Your task to perform on an android device: change timer sound Image 0: 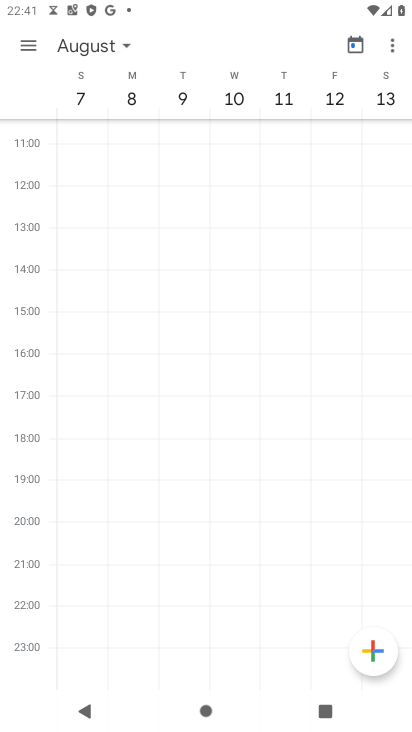
Step 0: press home button
Your task to perform on an android device: change timer sound Image 1: 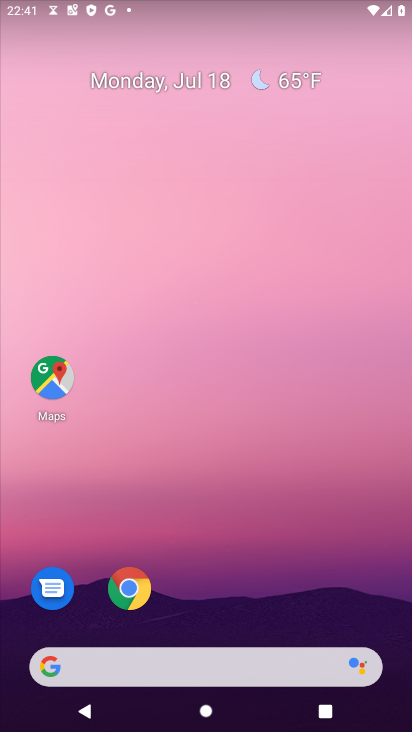
Step 1: drag from (211, 670) to (273, 91)
Your task to perform on an android device: change timer sound Image 2: 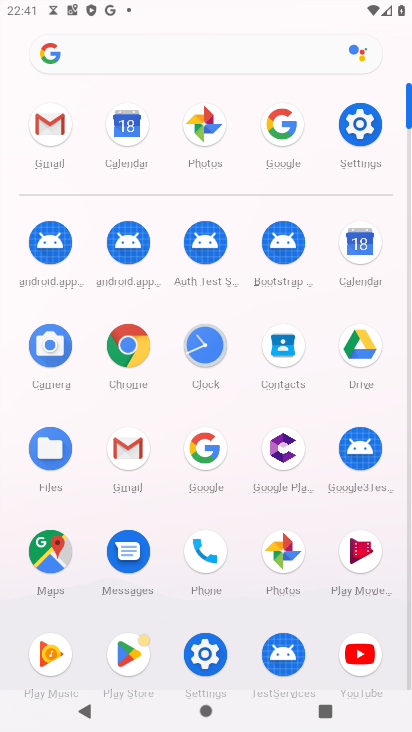
Step 2: click (205, 344)
Your task to perform on an android device: change timer sound Image 3: 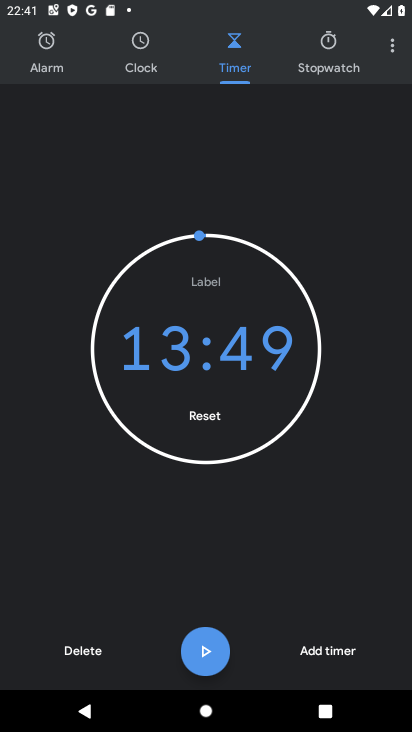
Step 3: click (392, 42)
Your task to perform on an android device: change timer sound Image 4: 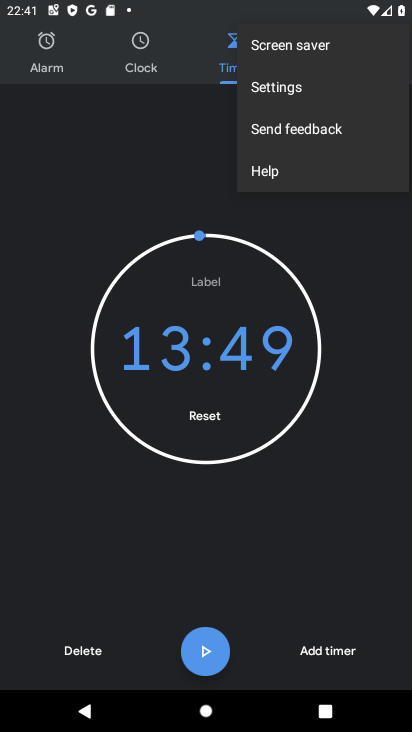
Step 4: click (295, 87)
Your task to perform on an android device: change timer sound Image 5: 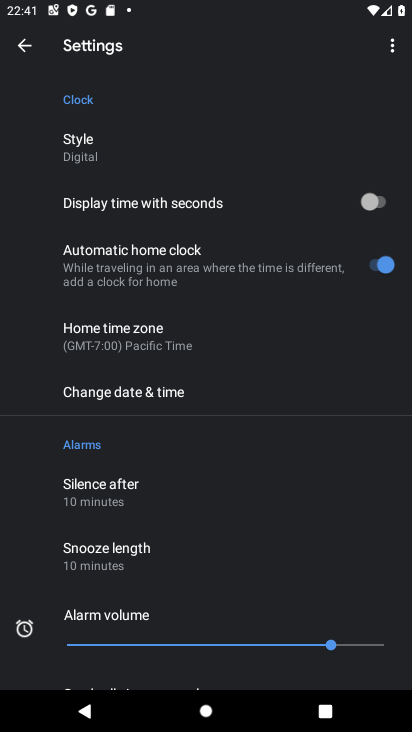
Step 5: drag from (190, 562) to (249, 344)
Your task to perform on an android device: change timer sound Image 6: 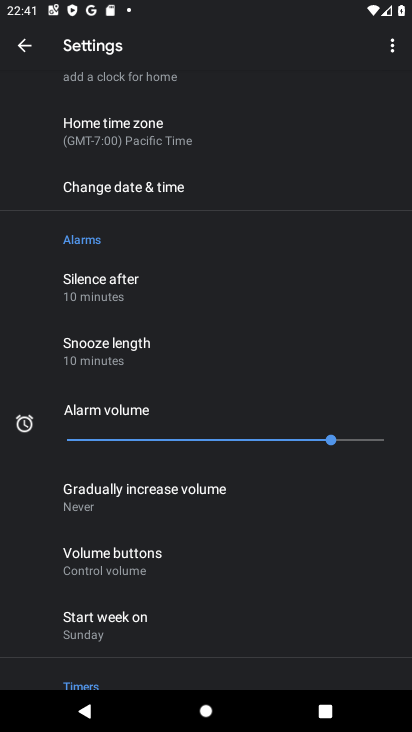
Step 6: drag from (212, 597) to (239, 389)
Your task to perform on an android device: change timer sound Image 7: 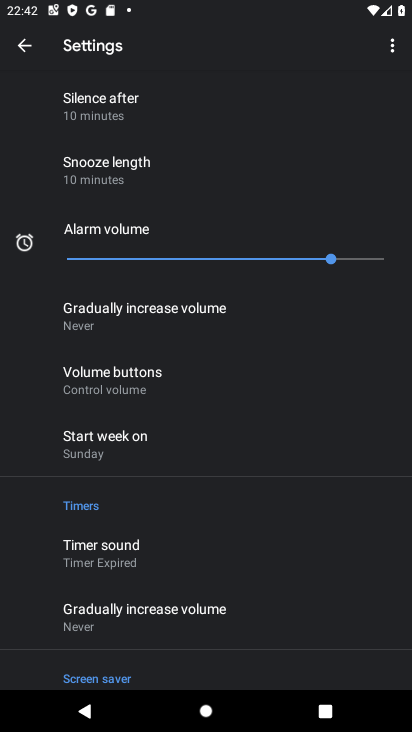
Step 7: click (140, 550)
Your task to perform on an android device: change timer sound Image 8: 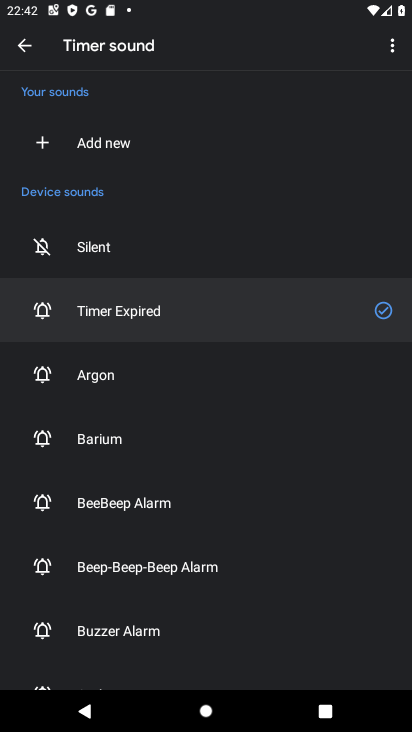
Step 8: drag from (160, 532) to (221, 209)
Your task to perform on an android device: change timer sound Image 9: 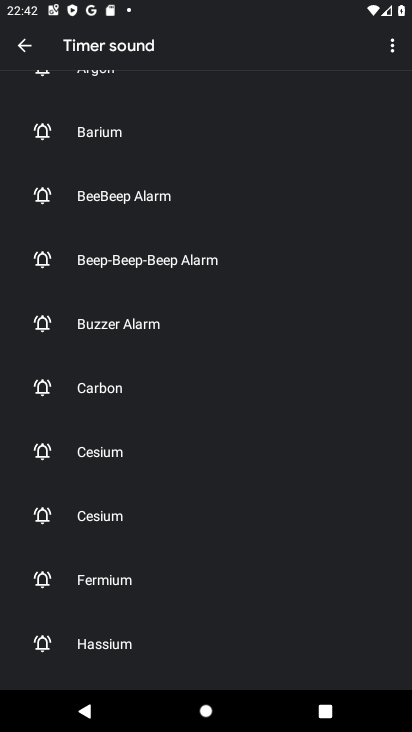
Step 9: click (175, 260)
Your task to perform on an android device: change timer sound Image 10: 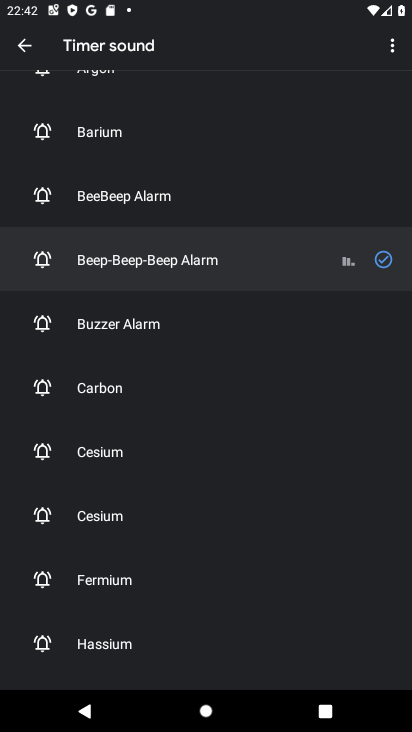
Step 10: task complete